Your task to perform on an android device: see tabs open on other devices in the chrome app Image 0: 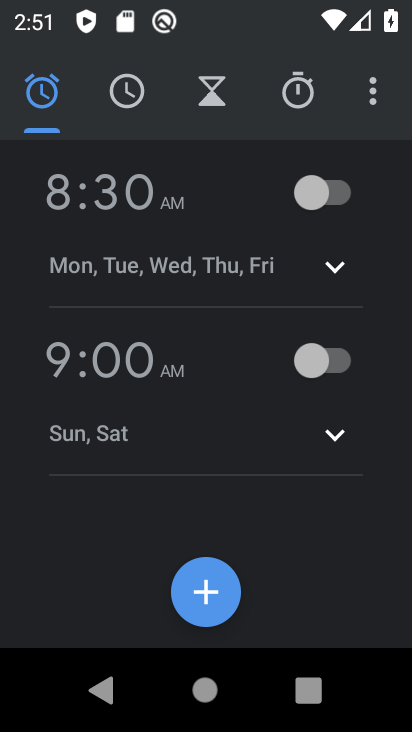
Step 0: press home button
Your task to perform on an android device: see tabs open on other devices in the chrome app Image 1: 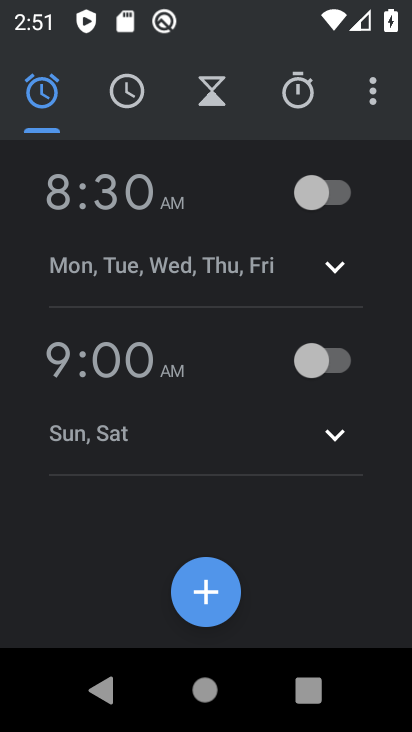
Step 1: press home button
Your task to perform on an android device: see tabs open on other devices in the chrome app Image 2: 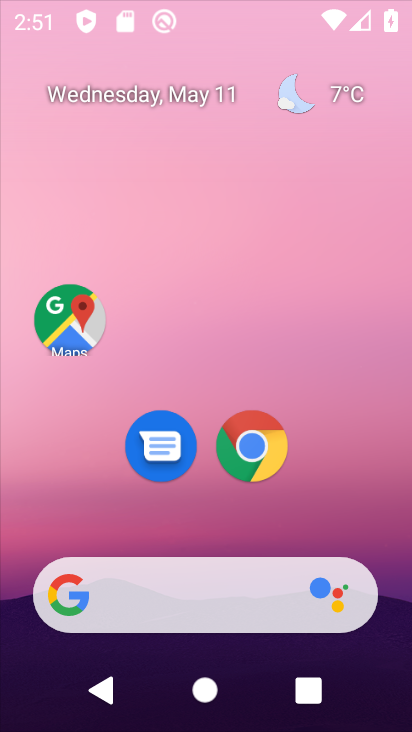
Step 2: press home button
Your task to perform on an android device: see tabs open on other devices in the chrome app Image 3: 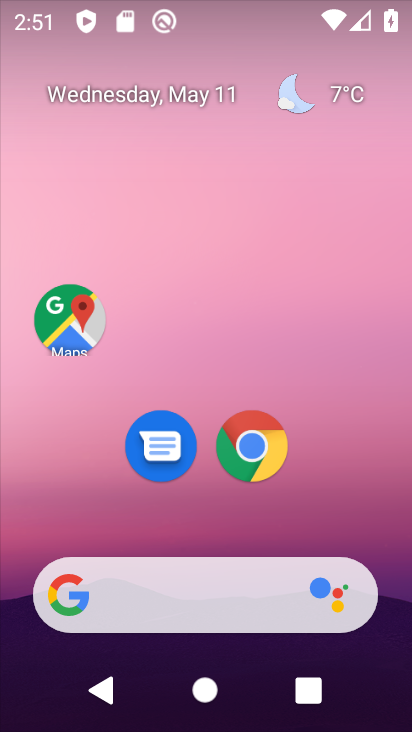
Step 3: drag from (345, 548) to (176, 28)
Your task to perform on an android device: see tabs open on other devices in the chrome app Image 4: 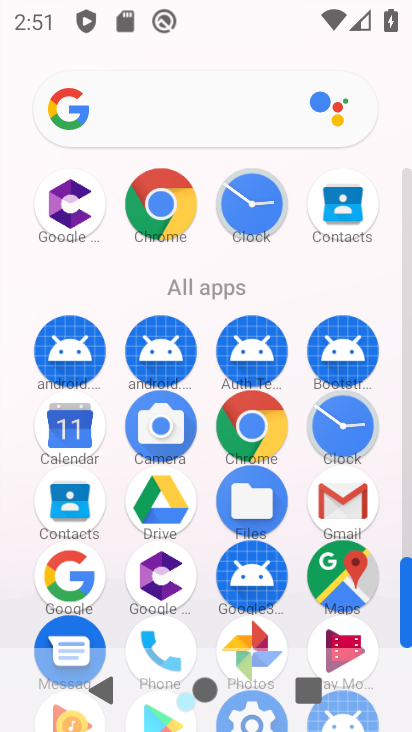
Step 4: click (153, 209)
Your task to perform on an android device: see tabs open on other devices in the chrome app Image 5: 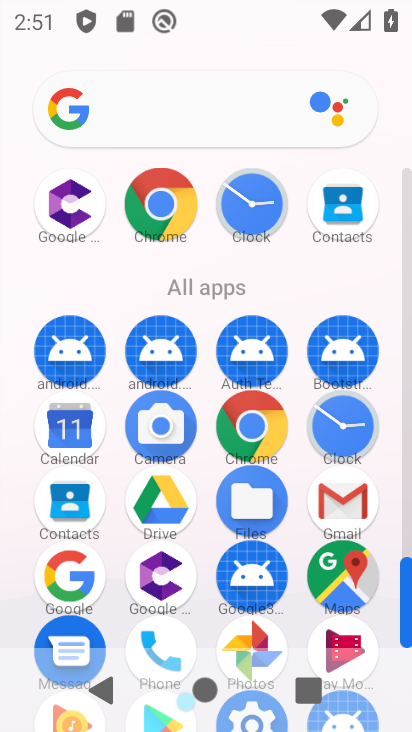
Step 5: click (154, 206)
Your task to perform on an android device: see tabs open on other devices in the chrome app Image 6: 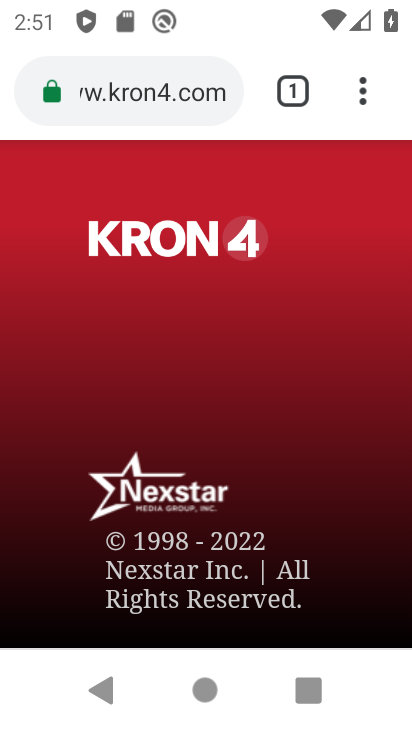
Step 6: click (357, 84)
Your task to perform on an android device: see tabs open on other devices in the chrome app Image 7: 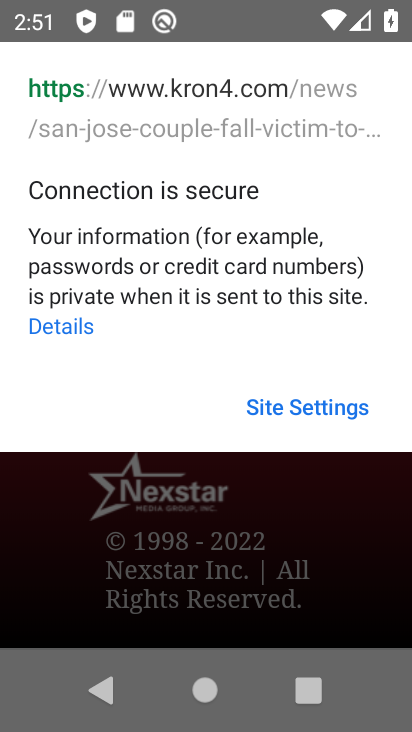
Step 7: click (263, 481)
Your task to perform on an android device: see tabs open on other devices in the chrome app Image 8: 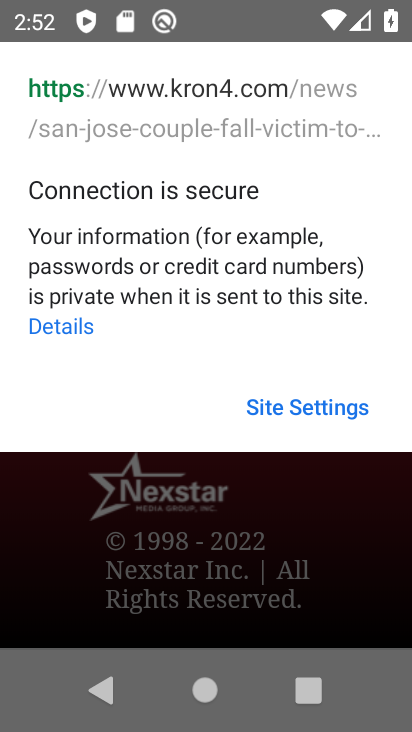
Step 8: click (258, 473)
Your task to perform on an android device: see tabs open on other devices in the chrome app Image 9: 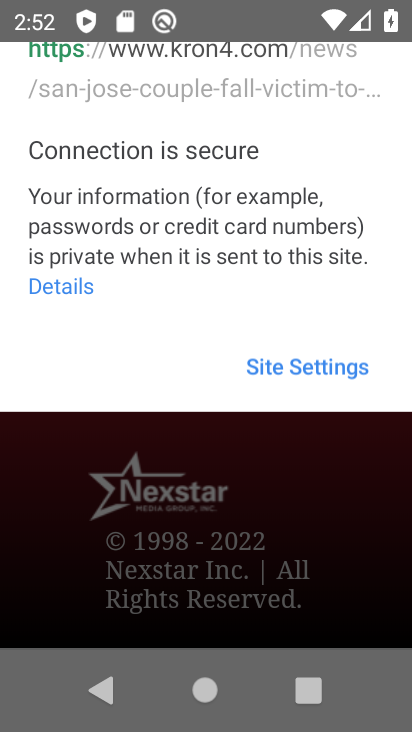
Step 9: click (280, 510)
Your task to perform on an android device: see tabs open on other devices in the chrome app Image 10: 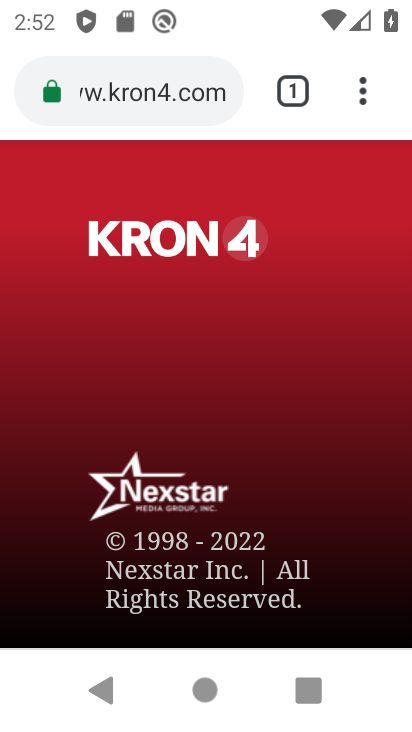
Step 10: drag from (358, 82) to (94, 329)
Your task to perform on an android device: see tabs open on other devices in the chrome app Image 11: 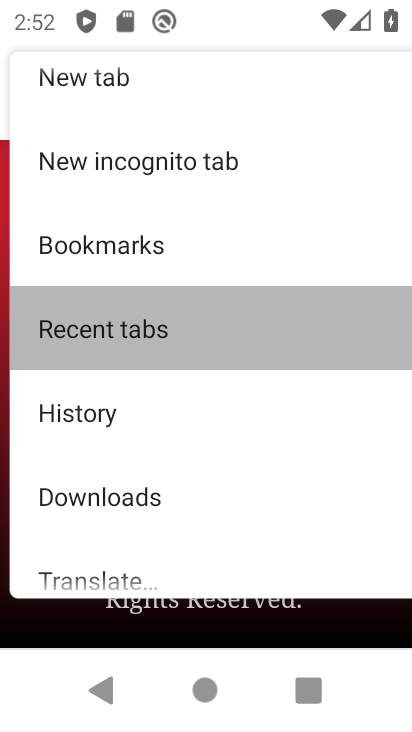
Step 11: click (89, 341)
Your task to perform on an android device: see tabs open on other devices in the chrome app Image 12: 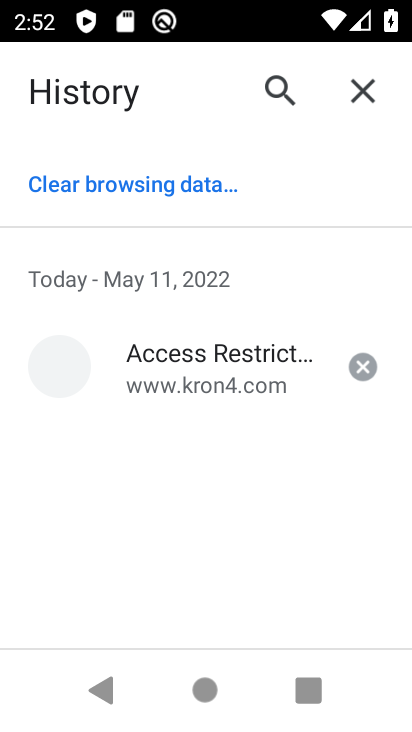
Step 12: task complete